Your task to perform on an android device: check google app version Image 0: 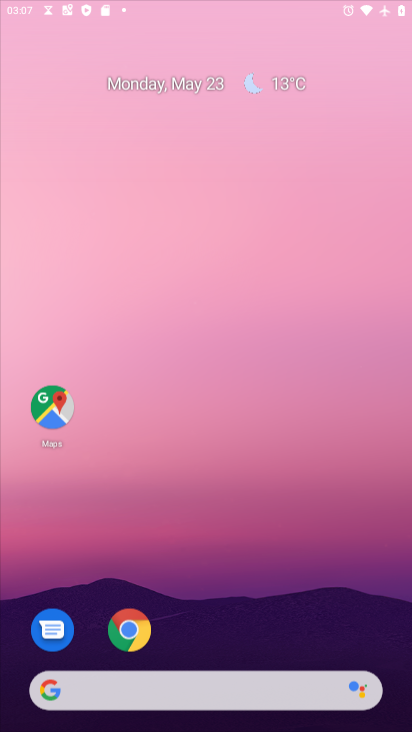
Step 0: click (131, 625)
Your task to perform on an android device: check google app version Image 1: 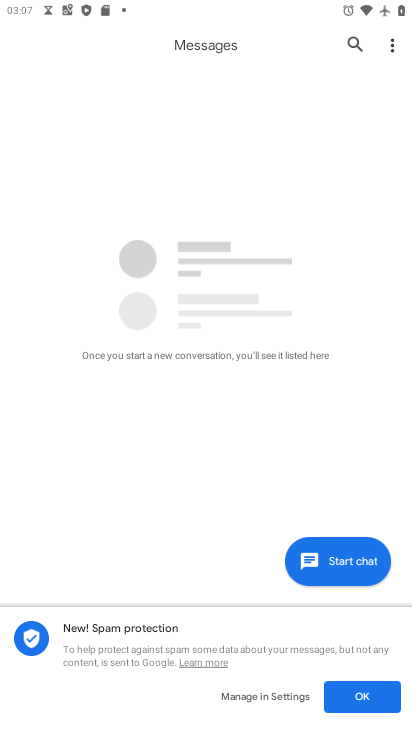
Step 1: press home button
Your task to perform on an android device: check google app version Image 2: 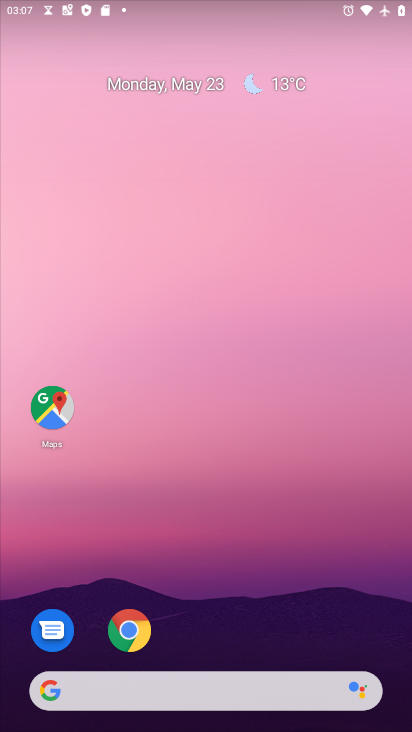
Step 2: drag from (254, 291) to (221, 155)
Your task to perform on an android device: check google app version Image 3: 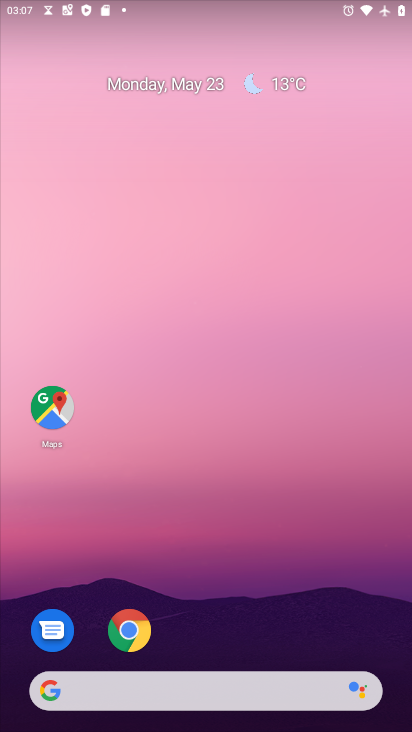
Step 3: drag from (266, 565) to (166, 3)
Your task to perform on an android device: check google app version Image 4: 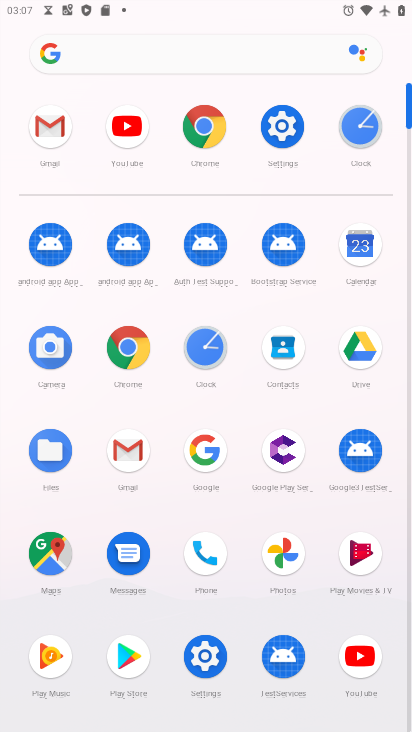
Step 4: click (211, 450)
Your task to perform on an android device: check google app version Image 5: 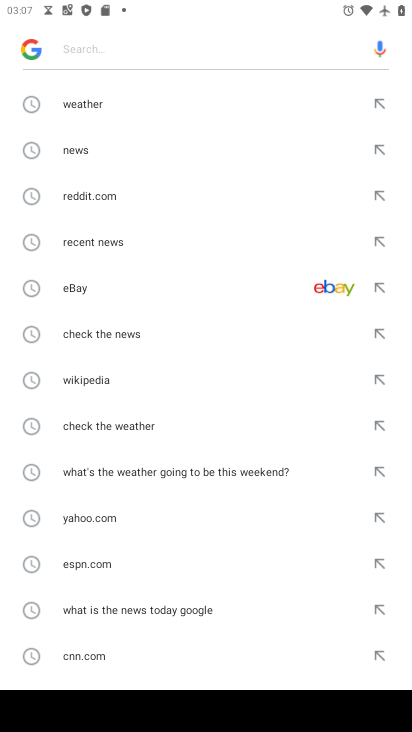
Step 5: drag from (240, 656) to (234, 289)
Your task to perform on an android device: check google app version Image 6: 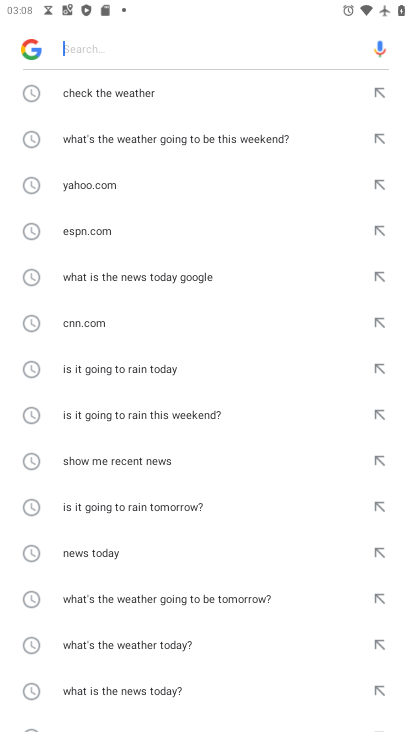
Step 6: press back button
Your task to perform on an android device: check google app version Image 7: 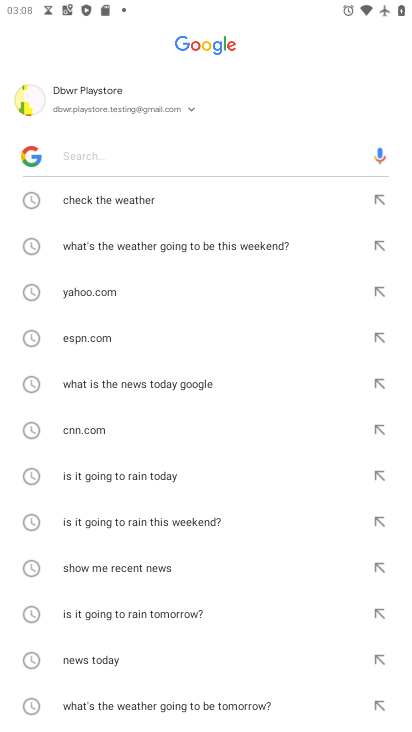
Step 7: click (29, 156)
Your task to perform on an android device: check google app version Image 8: 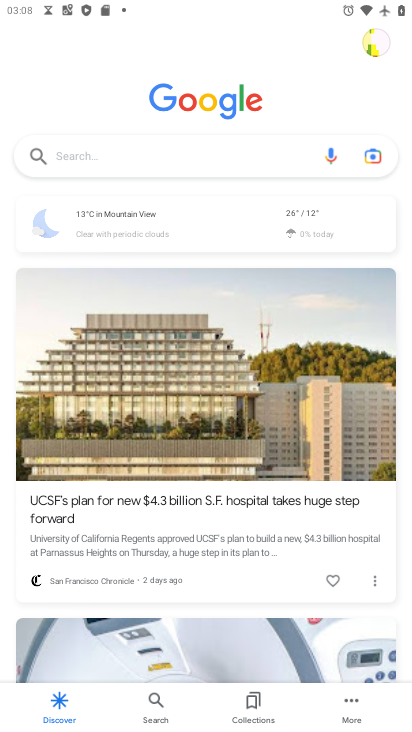
Step 8: click (359, 707)
Your task to perform on an android device: check google app version Image 9: 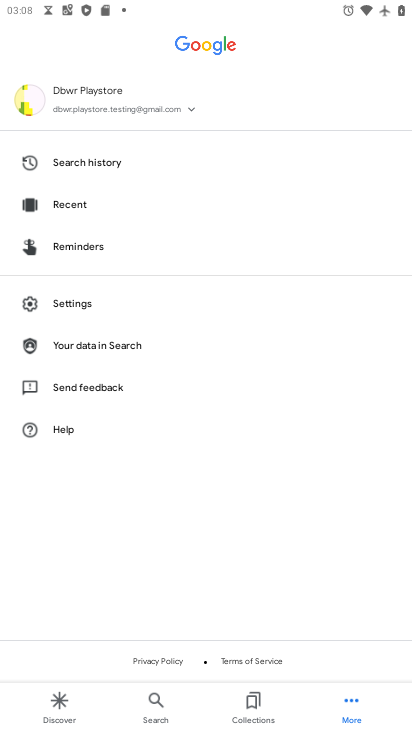
Step 9: click (111, 305)
Your task to perform on an android device: check google app version Image 10: 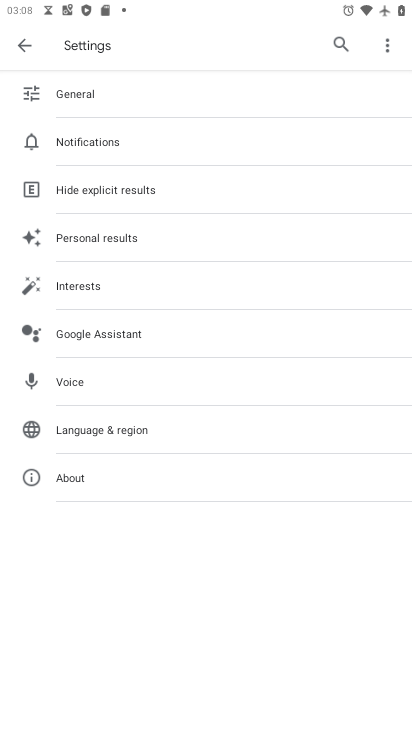
Step 10: click (138, 473)
Your task to perform on an android device: check google app version Image 11: 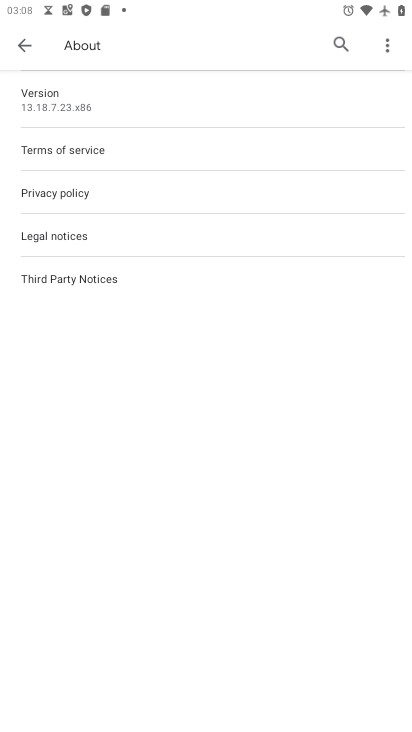
Step 11: click (213, 100)
Your task to perform on an android device: check google app version Image 12: 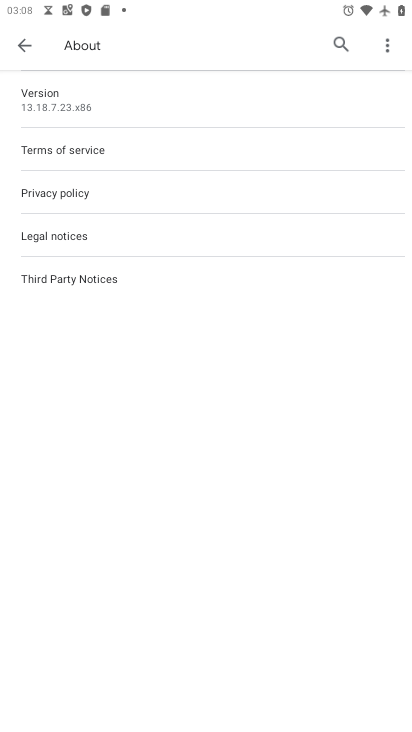
Step 12: task complete